Your task to perform on an android device: turn on bluetooth scan Image 0: 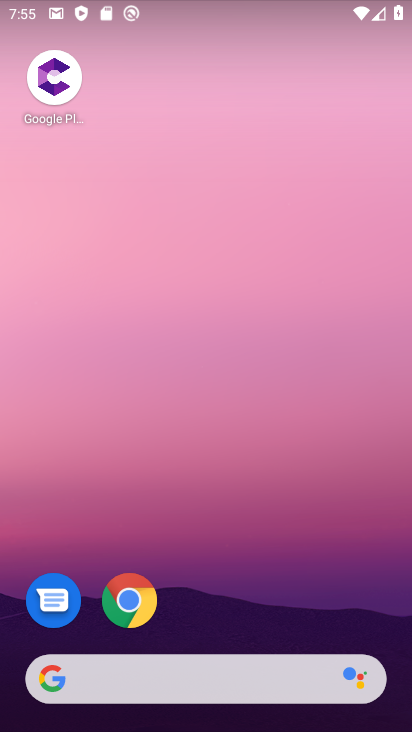
Step 0: drag from (214, 618) to (369, 85)
Your task to perform on an android device: turn on bluetooth scan Image 1: 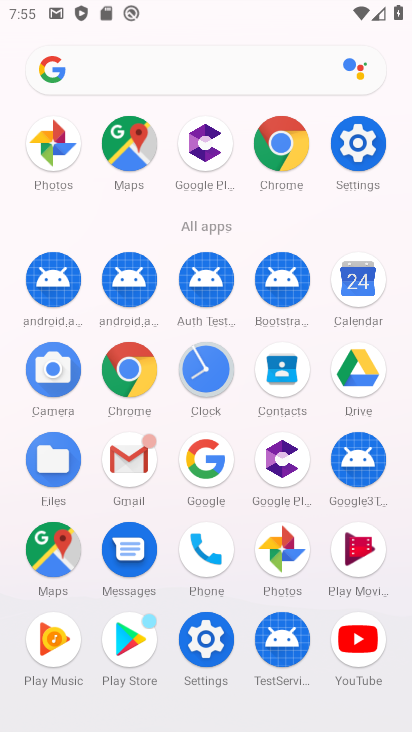
Step 1: click (376, 123)
Your task to perform on an android device: turn on bluetooth scan Image 2: 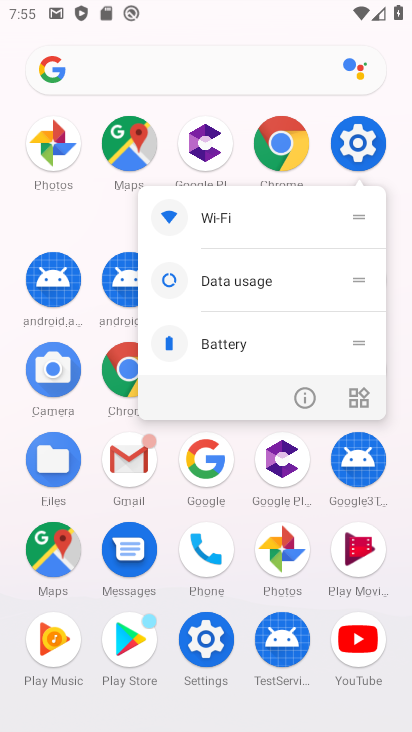
Step 2: click (362, 144)
Your task to perform on an android device: turn on bluetooth scan Image 3: 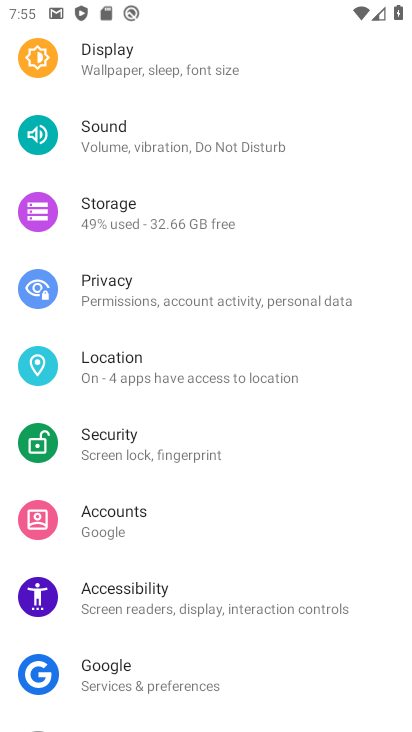
Step 3: click (176, 380)
Your task to perform on an android device: turn on bluetooth scan Image 4: 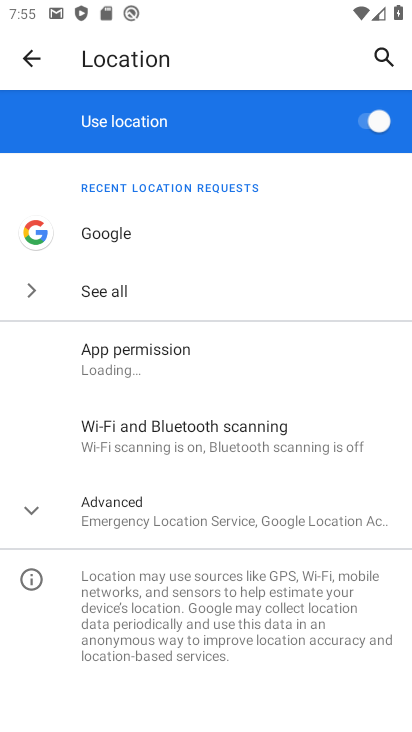
Step 4: click (205, 429)
Your task to perform on an android device: turn on bluetooth scan Image 5: 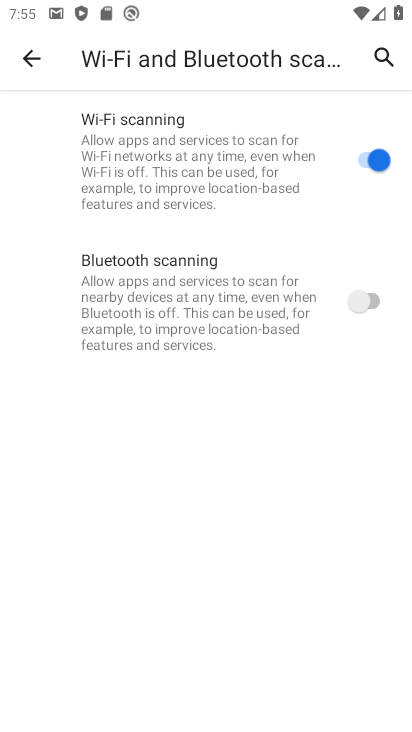
Step 5: click (226, 347)
Your task to perform on an android device: turn on bluetooth scan Image 6: 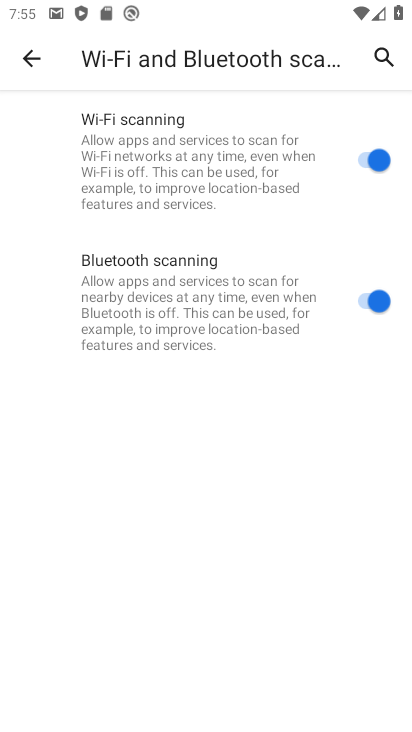
Step 6: task complete